Your task to perform on an android device: What's the weather today? Image 0: 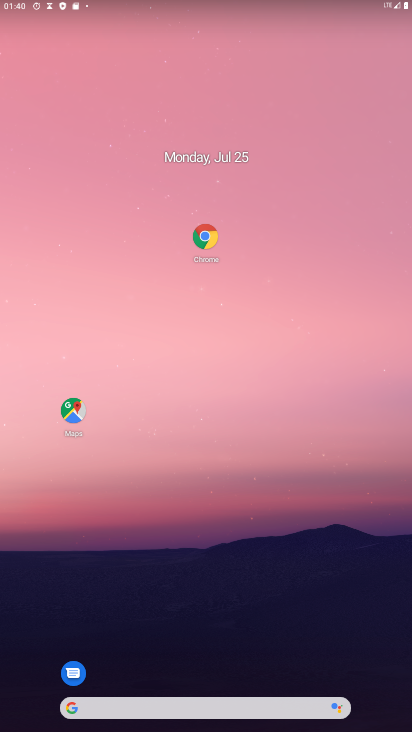
Step 0: drag from (170, 655) to (197, 2)
Your task to perform on an android device: What's the weather today? Image 1: 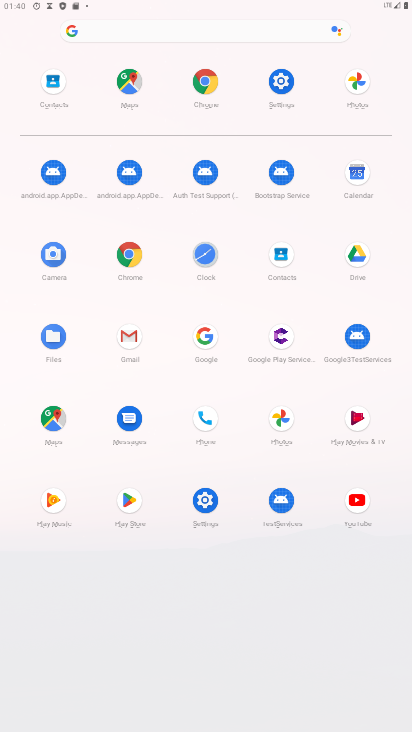
Step 1: click (126, 254)
Your task to perform on an android device: What's the weather today? Image 2: 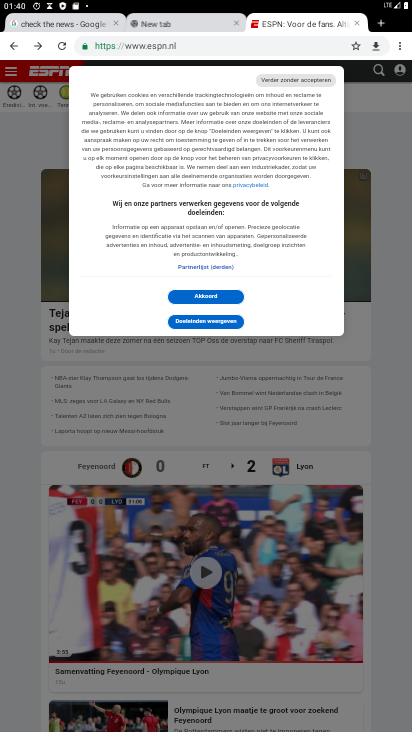
Step 2: click (227, 41)
Your task to perform on an android device: What's the weather today? Image 3: 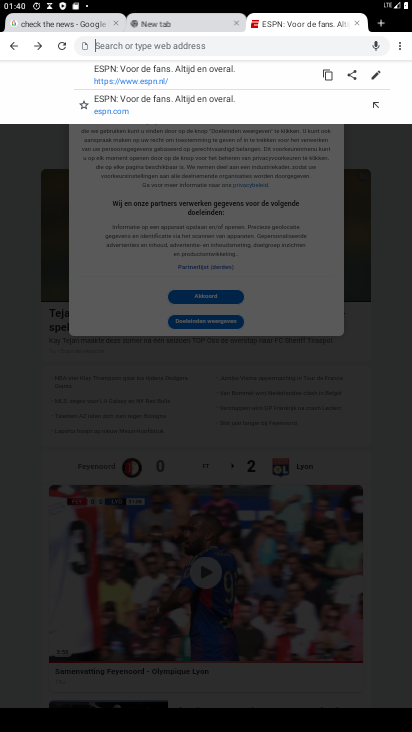
Step 3: type "weather today"
Your task to perform on an android device: What's the weather today? Image 4: 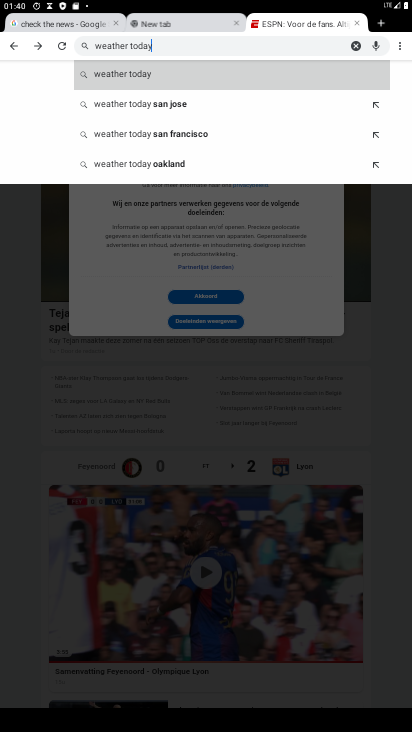
Step 4: click (128, 75)
Your task to perform on an android device: What's the weather today? Image 5: 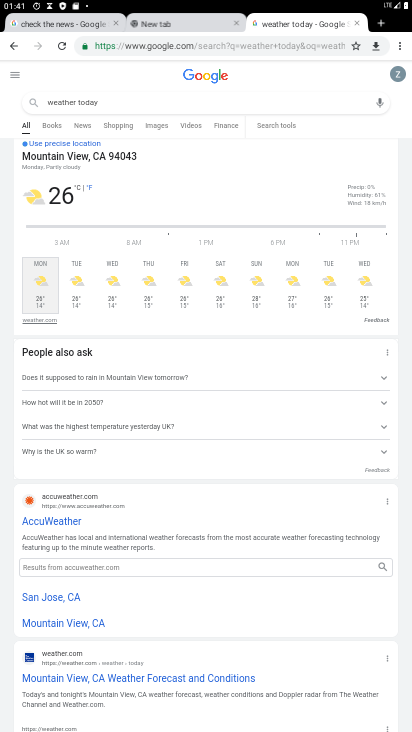
Step 5: task complete